Your task to perform on an android device: Is it going to rain this weekend? Image 0: 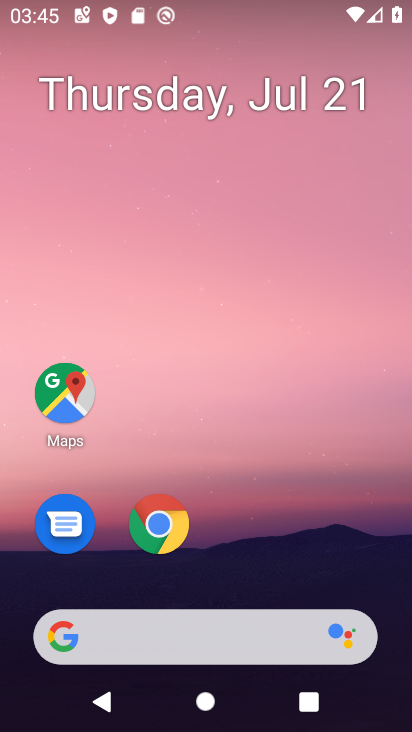
Step 0: drag from (280, 544) to (260, 106)
Your task to perform on an android device: Is it going to rain this weekend? Image 1: 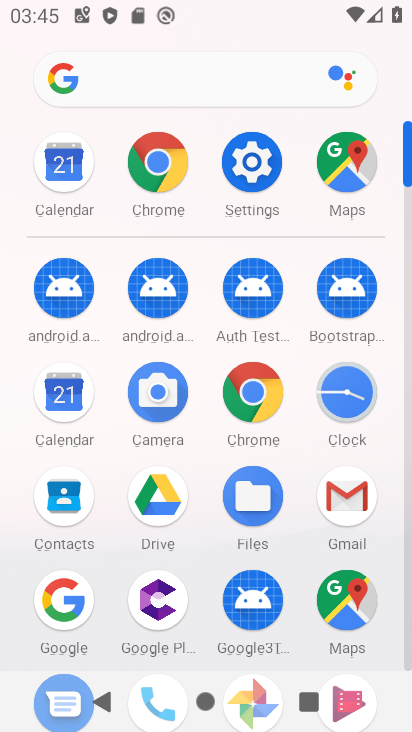
Step 1: click (74, 601)
Your task to perform on an android device: Is it going to rain this weekend? Image 2: 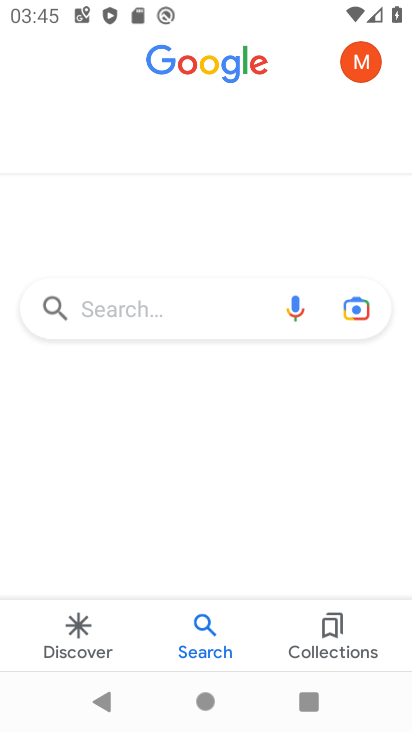
Step 2: click (189, 317)
Your task to perform on an android device: Is it going to rain this weekend? Image 3: 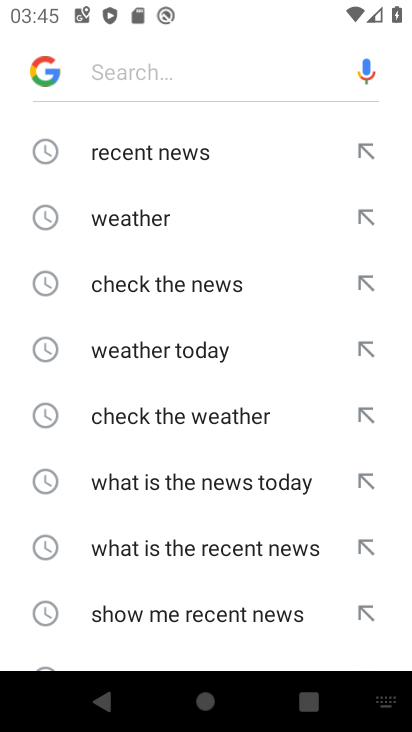
Step 3: click (143, 218)
Your task to perform on an android device: Is it going to rain this weekend? Image 4: 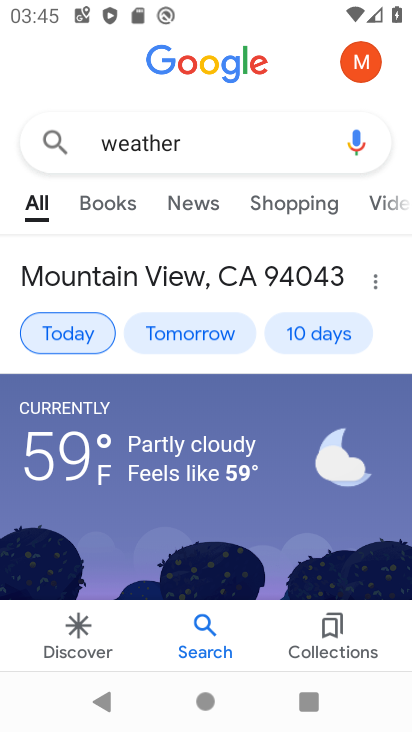
Step 4: click (334, 330)
Your task to perform on an android device: Is it going to rain this weekend? Image 5: 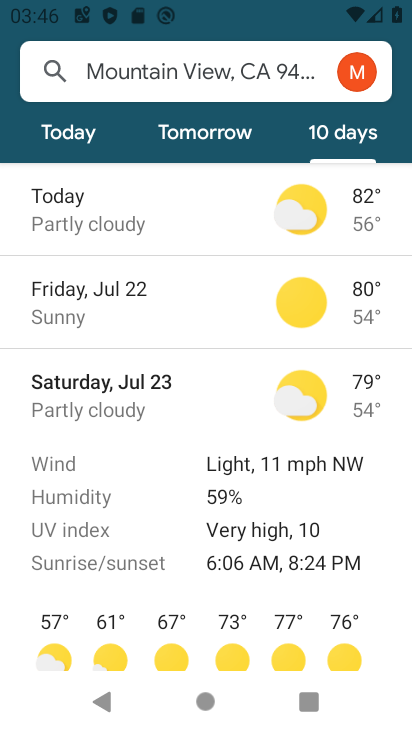
Step 5: task complete